Your task to perform on an android device: Open my contact list Image 0: 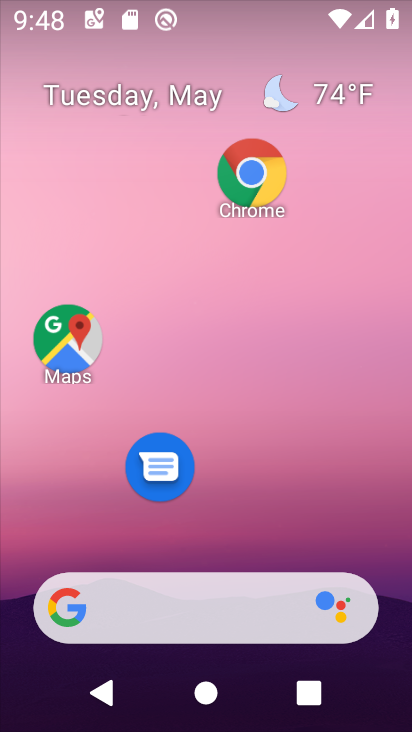
Step 0: press home button
Your task to perform on an android device: Open my contact list Image 1: 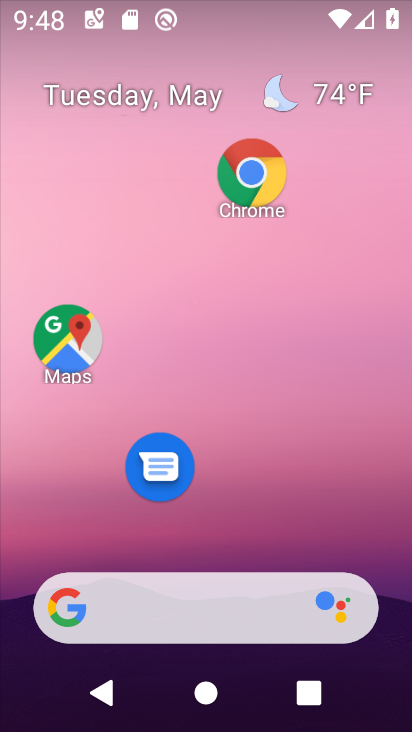
Step 1: drag from (332, 507) to (336, 140)
Your task to perform on an android device: Open my contact list Image 2: 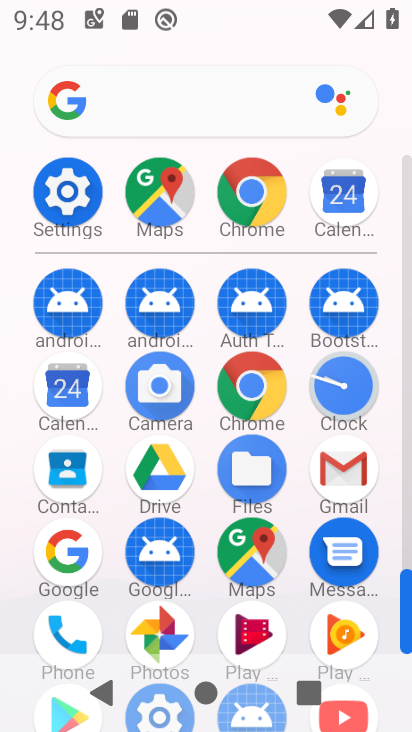
Step 2: click (48, 486)
Your task to perform on an android device: Open my contact list Image 3: 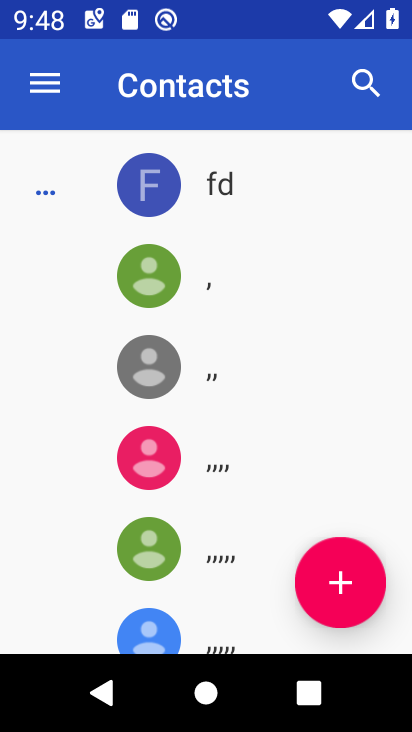
Step 3: task complete